Your task to perform on an android device: Search for Italian restaurants on Maps Image 0: 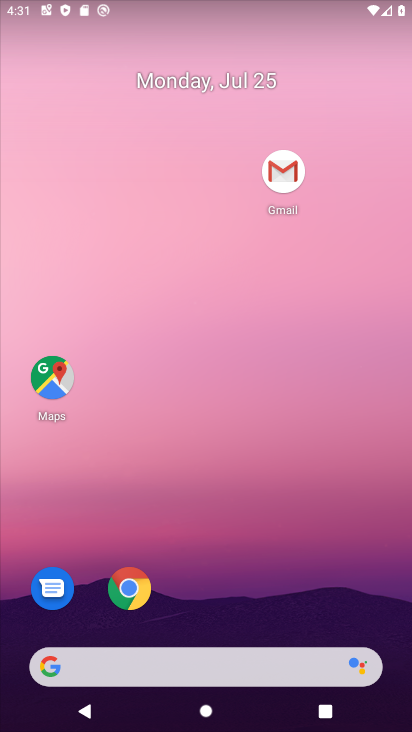
Step 0: click (52, 375)
Your task to perform on an android device: Search for Italian restaurants on Maps Image 1: 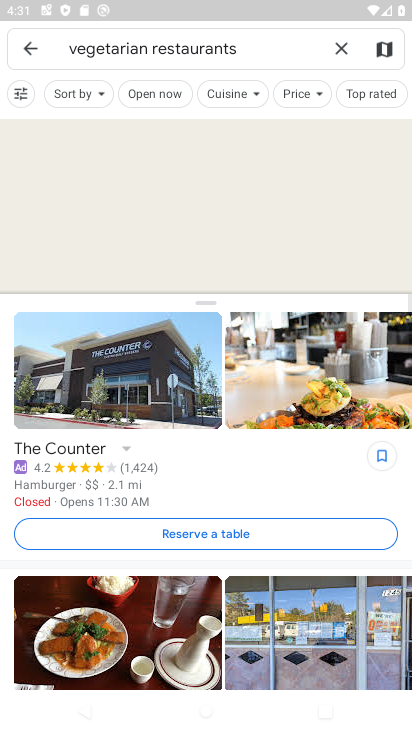
Step 1: click (337, 45)
Your task to perform on an android device: Search for Italian restaurants on Maps Image 2: 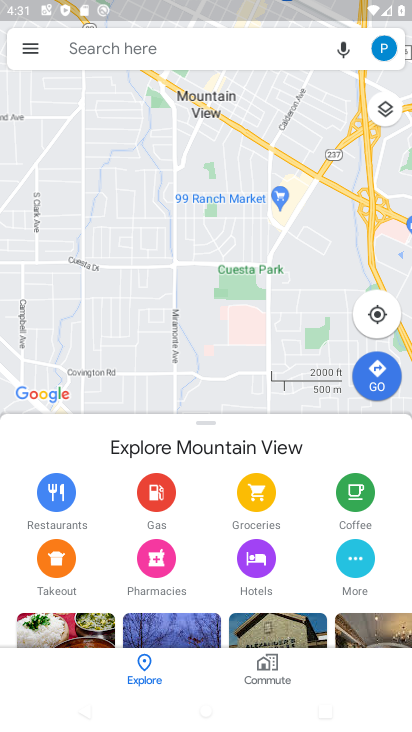
Step 2: click (176, 51)
Your task to perform on an android device: Search for Italian restaurants on Maps Image 3: 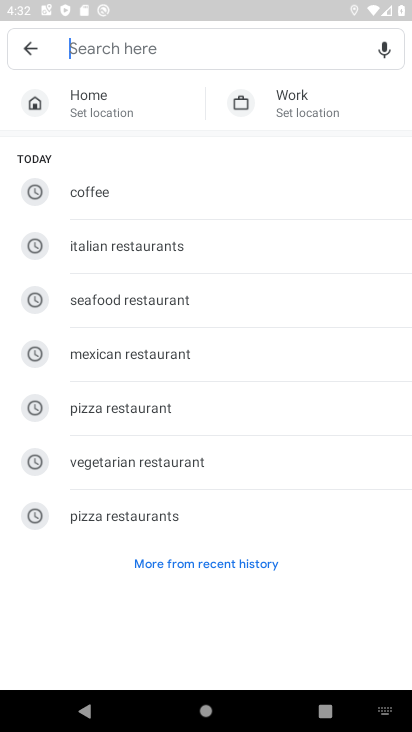
Step 3: click (229, 240)
Your task to perform on an android device: Search for Italian restaurants on Maps Image 4: 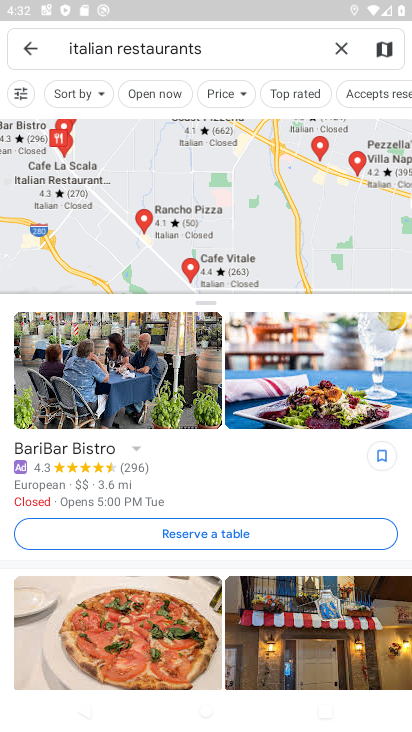
Step 4: task complete